Your task to perform on an android device: Go to notification settings Image 0: 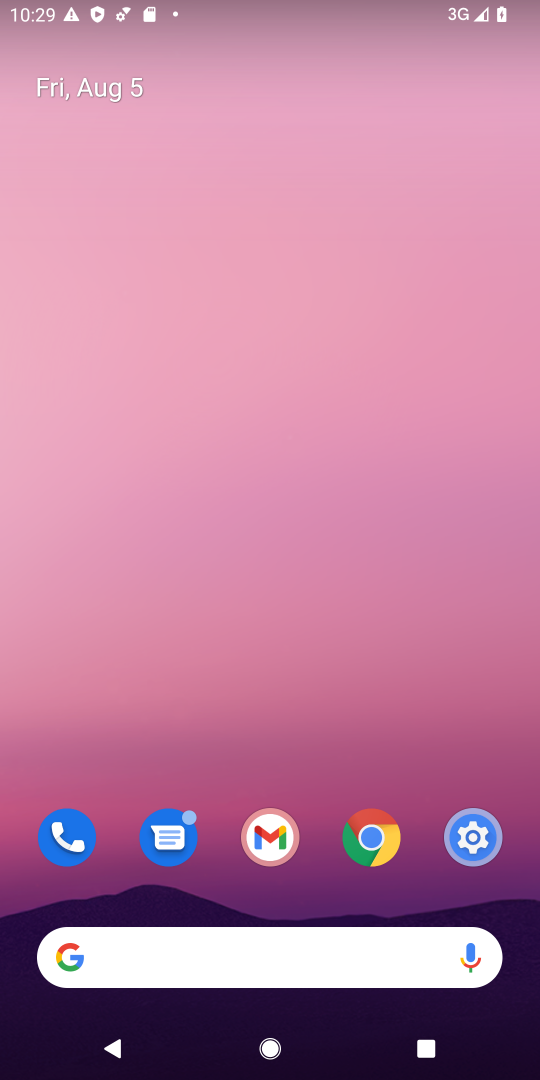
Step 0: click (478, 837)
Your task to perform on an android device: Go to notification settings Image 1: 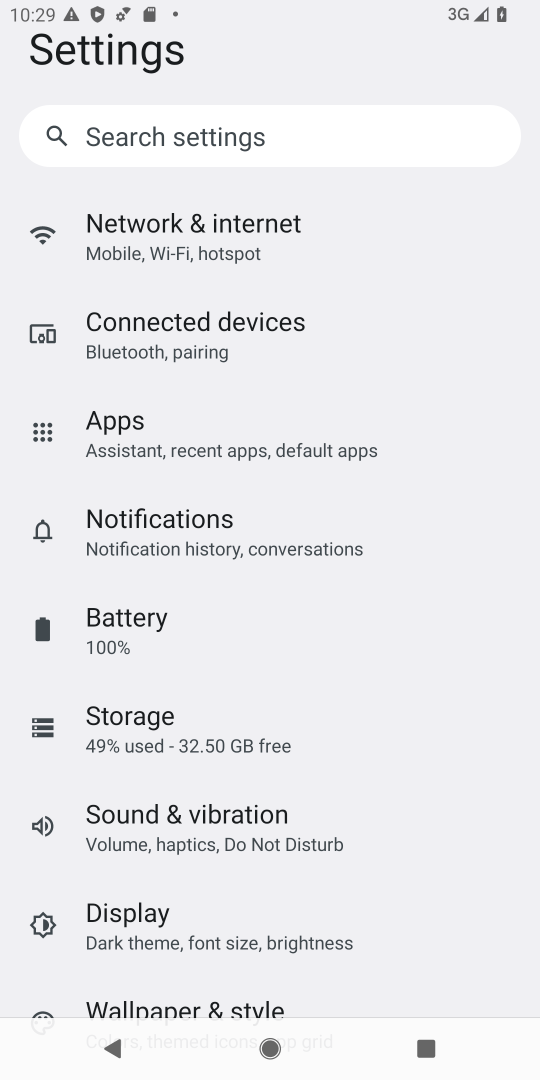
Step 1: click (230, 533)
Your task to perform on an android device: Go to notification settings Image 2: 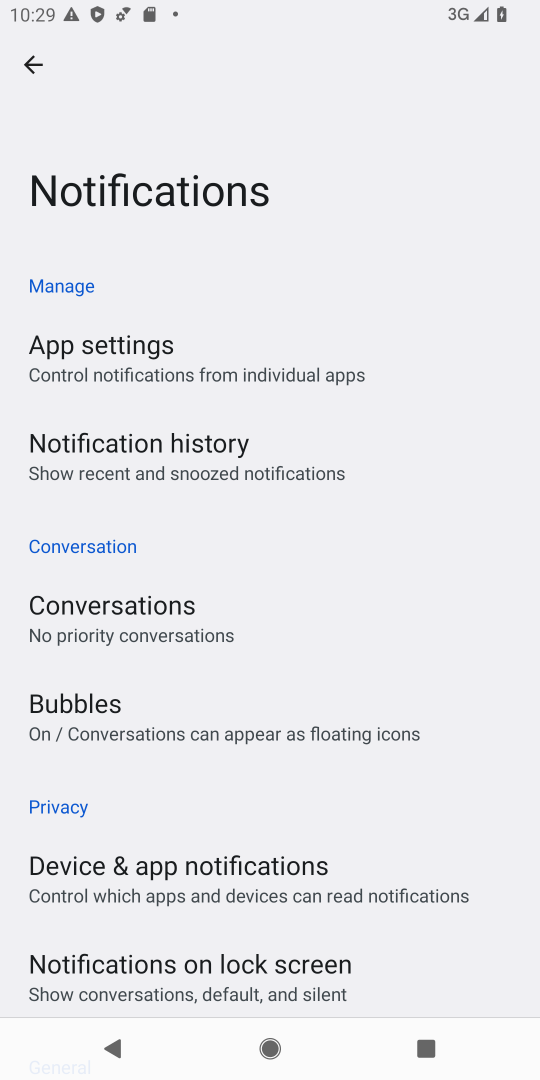
Step 2: task complete